Your task to perform on an android device: turn on the 12-hour format for clock Image 0: 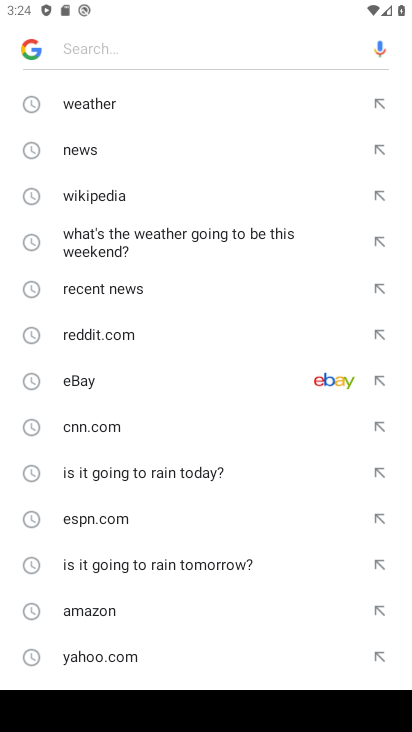
Step 0: press home button
Your task to perform on an android device: turn on the 12-hour format for clock Image 1: 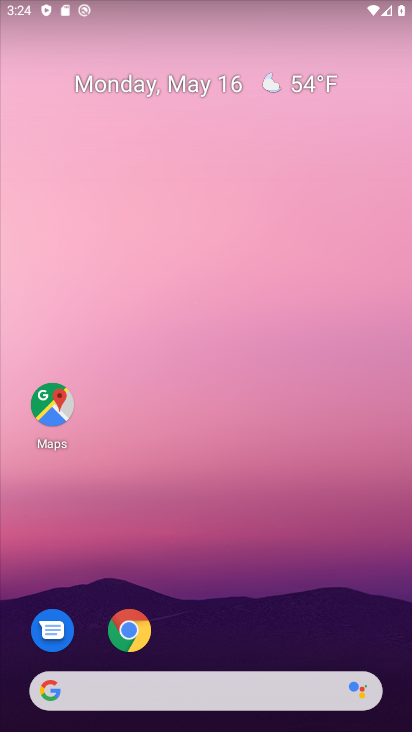
Step 1: drag from (281, 648) to (242, 122)
Your task to perform on an android device: turn on the 12-hour format for clock Image 2: 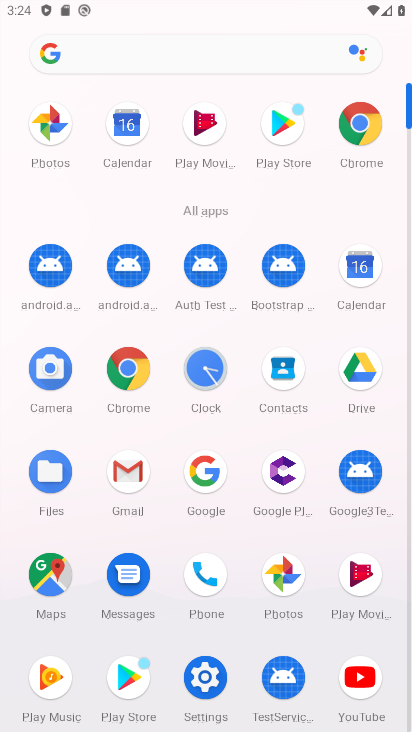
Step 2: click (214, 357)
Your task to perform on an android device: turn on the 12-hour format for clock Image 3: 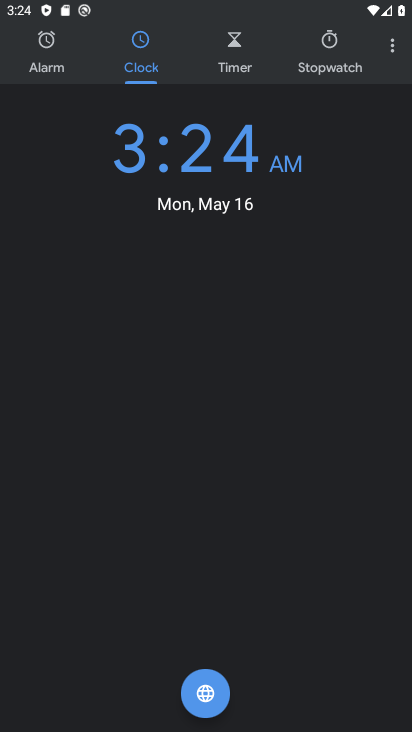
Step 3: click (394, 47)
Your task to perform on an android device: turn on the 12-hour format for clock Image 4: 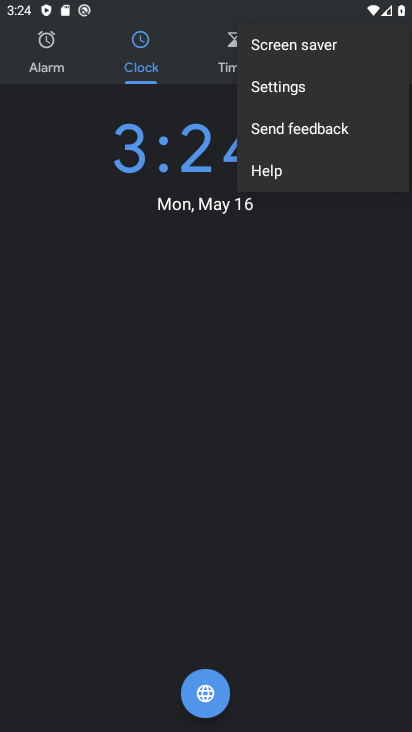
Step 4: click (368, 85)
Your task to perform on an android device: turn on the 12-hour format for clock Image 5: 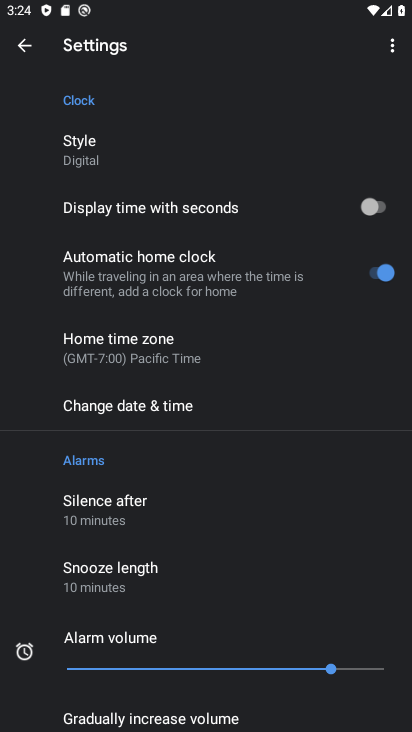
Step 5: click (242, 417)
Your task to perform on an android device: turn on the 12-hour format for clock Image 6: 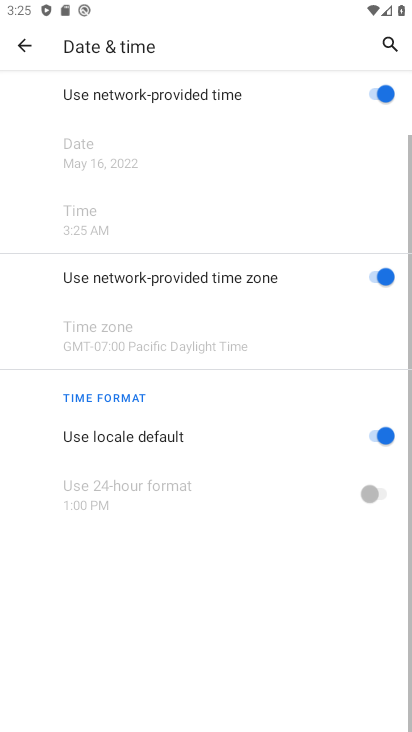
Step 6: task complete